Your task to perform on an android device: choose inbox layout in the gmail app Image 0: 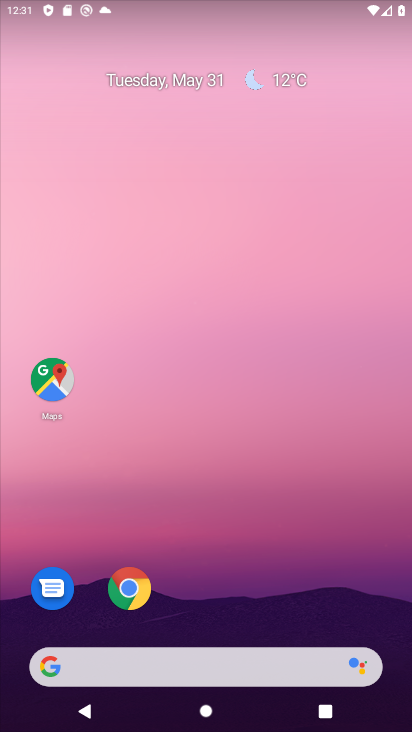
Step 0: drag from (391, 711) to (397, 150)
Your task to perform on an android device: choose inbox layout in the gmail app Image 1: 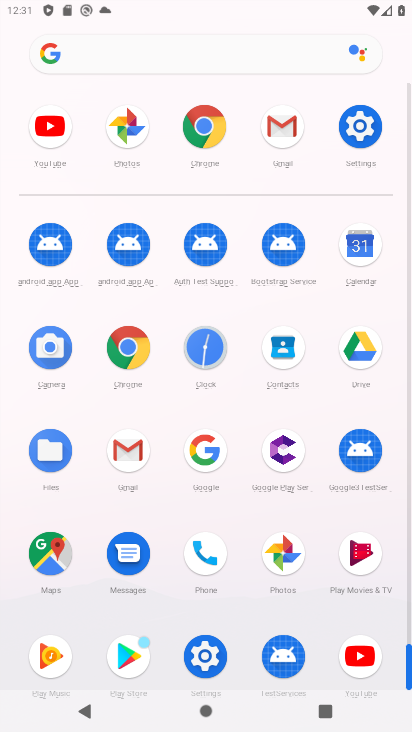
Step 1: click (135, 460)
Your task to perform on an android device: choose inbox layout in the gmail app Image 2: 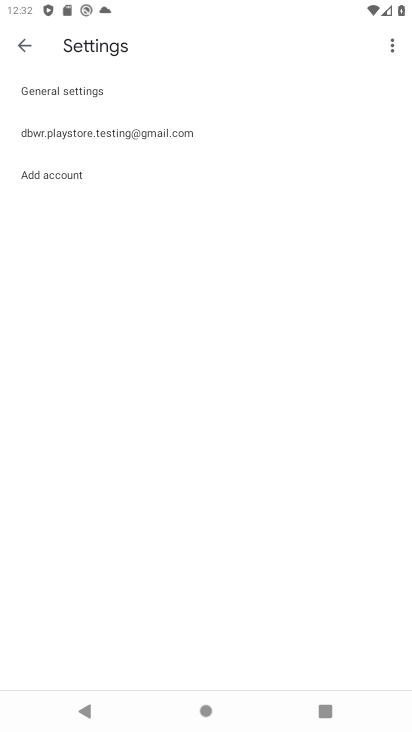
Step 2: click (19, 47)
Your task to perform on an android device: choose inbox layout in the gmail app Image 3: 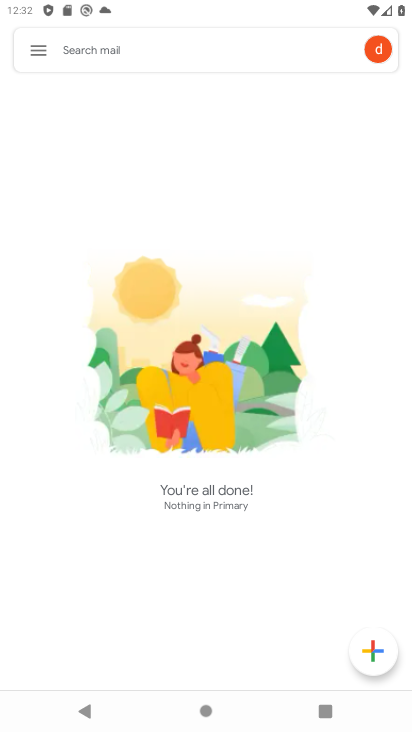
Step 3: click (42, 45)
Your task to perform on an android device: choose inbox layout in the gmail app Image 4: 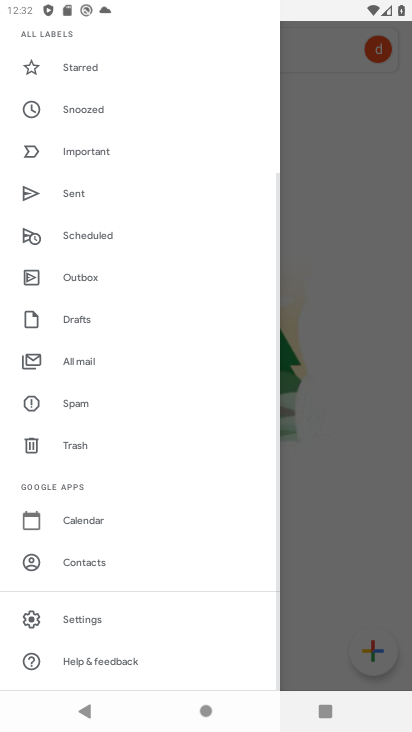
Step 4: drag from (160, 170) to (166, 239)
Your task to perform on an android device: choose inbox layout in the gmail app Image 5: 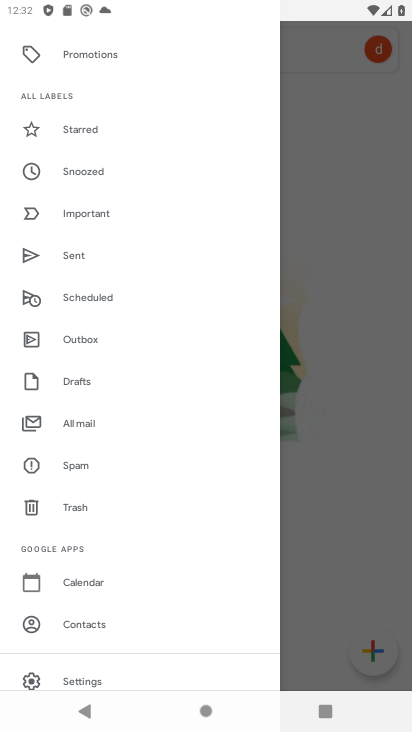
Step 5: drag from (156, 180) to (138, 447)
Your task to perform on an android device: choose inbox layout in the gmail app Image 6: 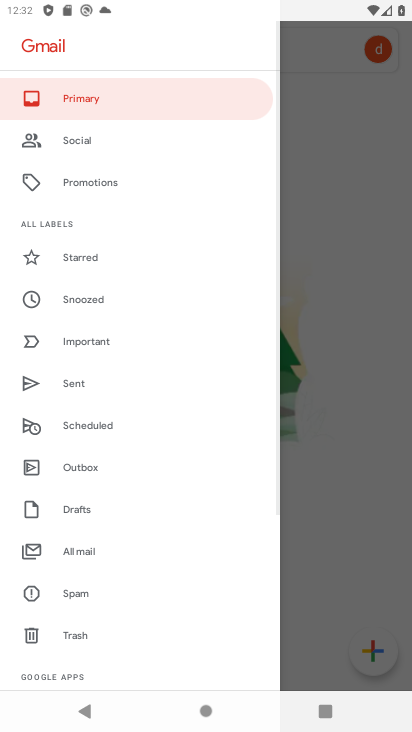
Step 6: click (80, 101)
Your task to perform on an android device: choose inbox layout in the gmail app Image 7: 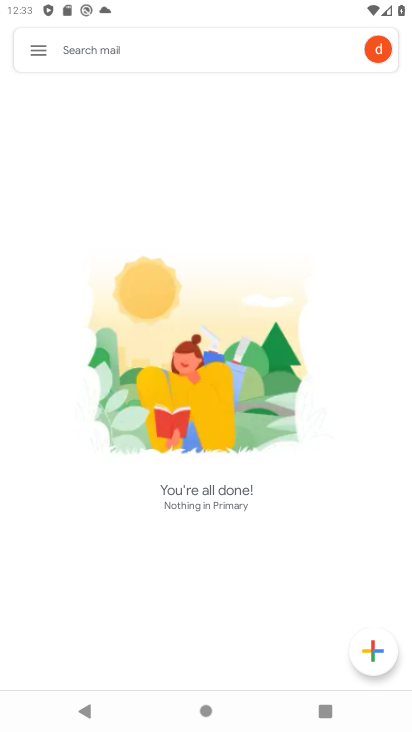
Step 7: task complete